Your task to perform on an android device: find which apps use the phone's location Image 0: 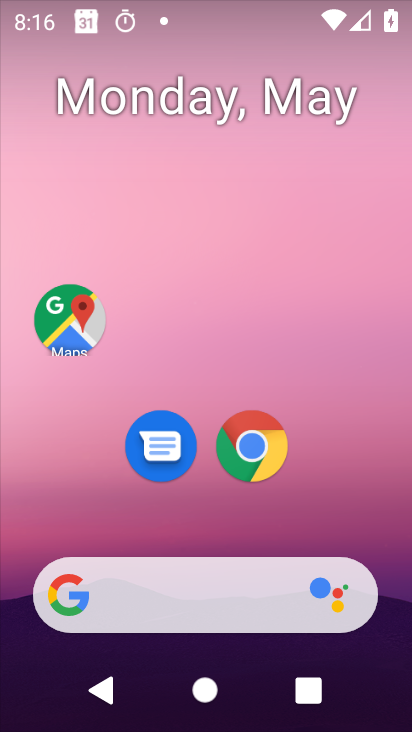
Step 0: drag from (370, 537) to (281, 31)
Your task to perform on an android device: find which apps use the phone's location Image 1: 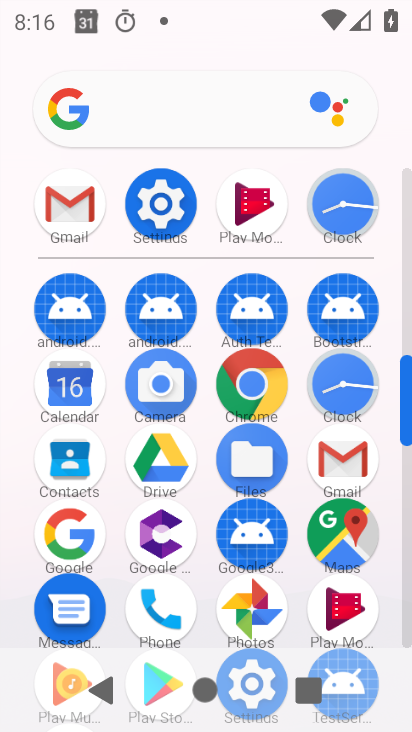
Step 1: click (179, 215)
Your task to perform on an android device: find which apps use the phone's location Image 2: 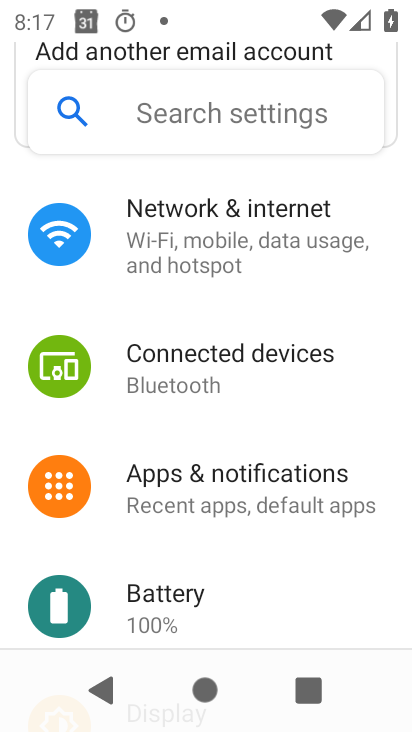
Step 2: drag from (241, 578) to (199, 65)
Your task to perform on an android device: find which apps use the phone's location Image 3: 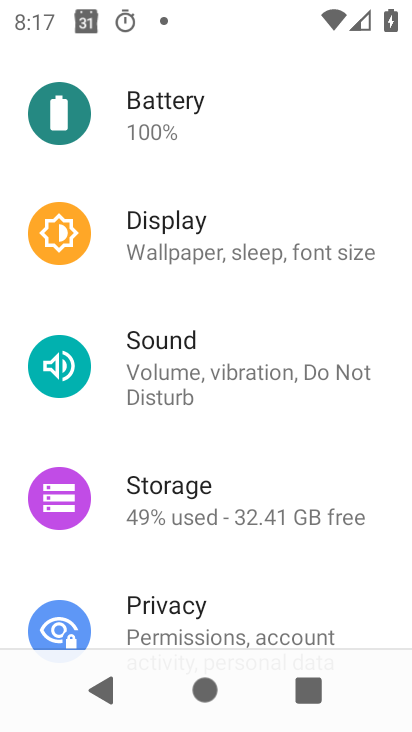
Step 3: drag from (209, 526) to (168, 63)
Your task to perform on an android device: find which apps use the phone's location Image 4: 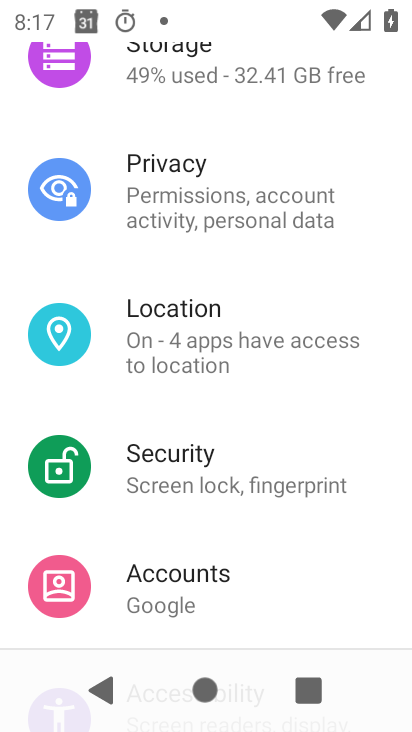
Step 4: click (195, 341)
Your task to perform on an android device: find which apps use the phone's location Image 5: 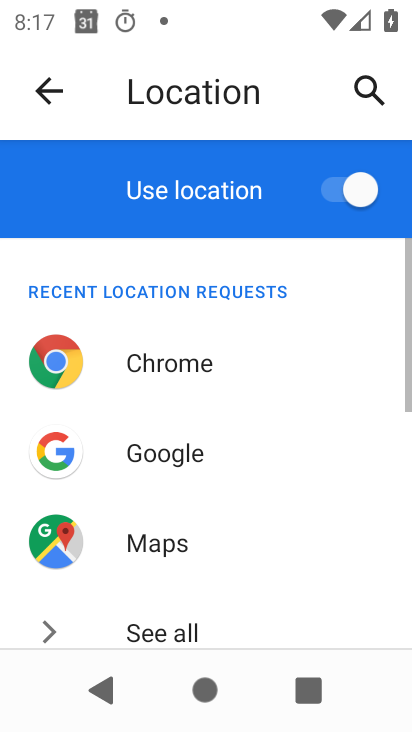
Step 5: drag from (252, 556) to (241, 42)
Your task to perform on an android device: find which apps use the phone's location Image 6: 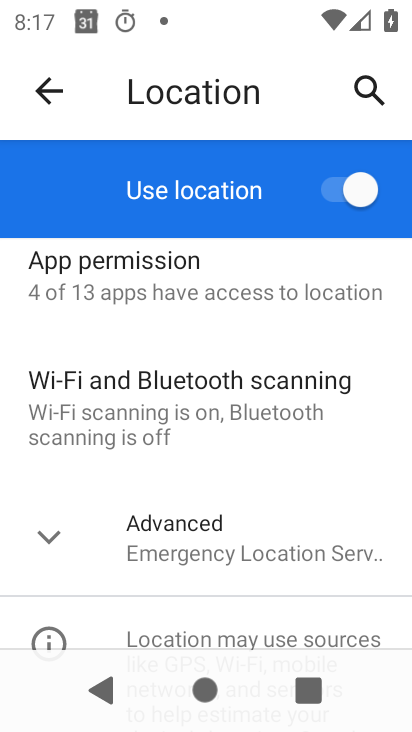
Step 6: click (75, 282)
Your task to perform on an android device: find which apps use the phone's location Image 7: 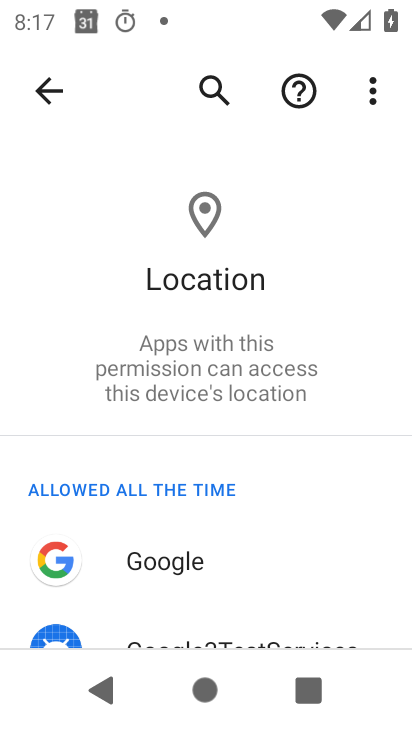
Step 7: task complete